Your task to perform on an android device: Open calendar and show me the third week of next month Image 0: 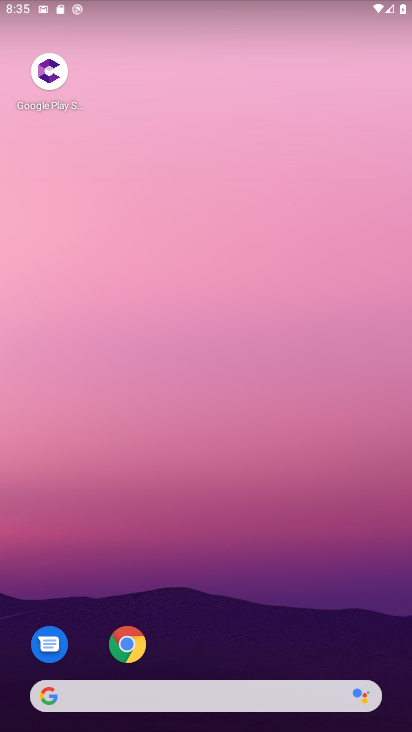
Step 0: drag from (312, 672) to (310, 260)
Your task to perform on an android device: Open calendar and show me the third week of next month Image 1: 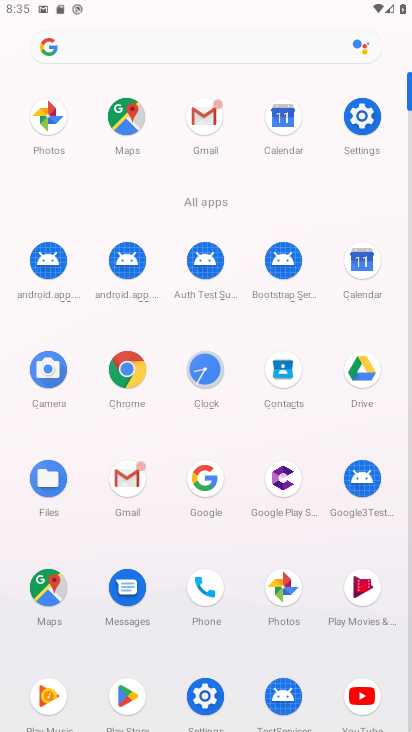
Step 1: click (360, 253)
Your task to perform on an android device: Open calendar and show me the third week of next month Image 2: 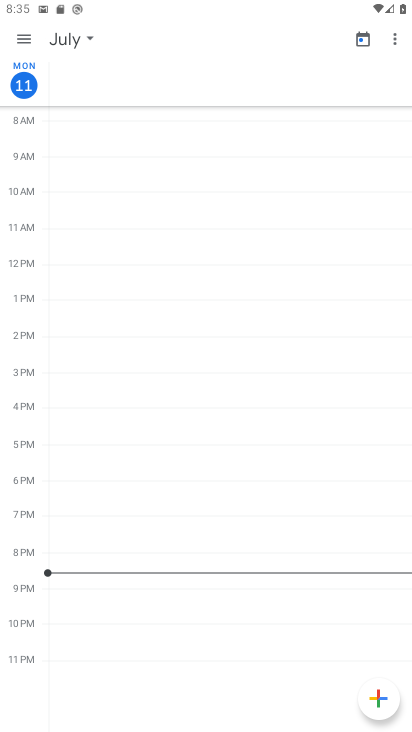
Step 2: click (76, 43)
Your task to perform on an android device: Open calendar and show me the third week of next month Image 3: 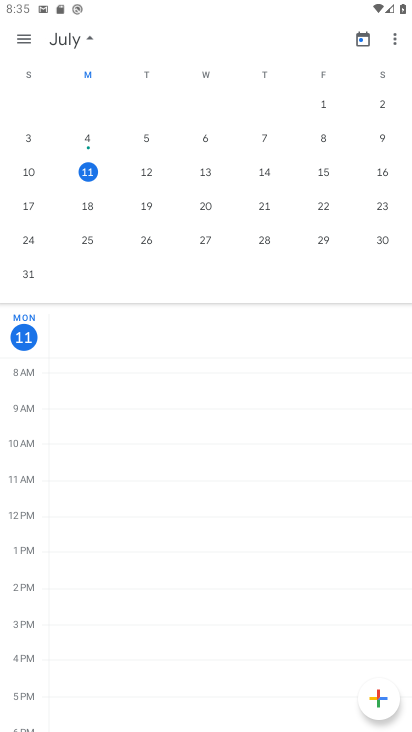
Step 3: drag from (393, 179) to (3, 257)
Your task to perform on an android device: Open calendar and show me the third week of next month Image 4: 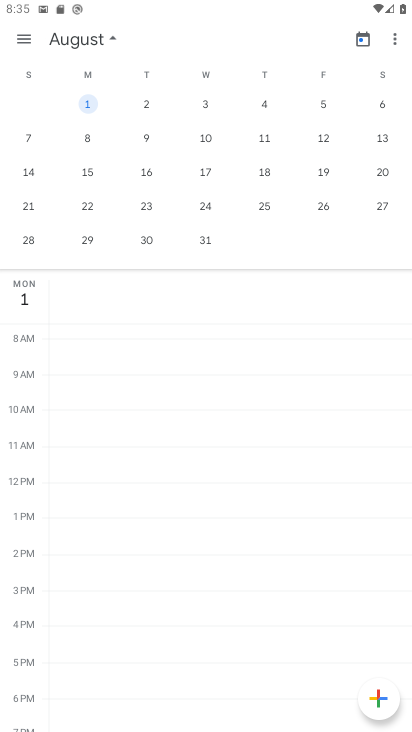
Step 4: click (30, 173)
Your task to perform on an android device: Open calendar and show me the third week of next month Image 5: 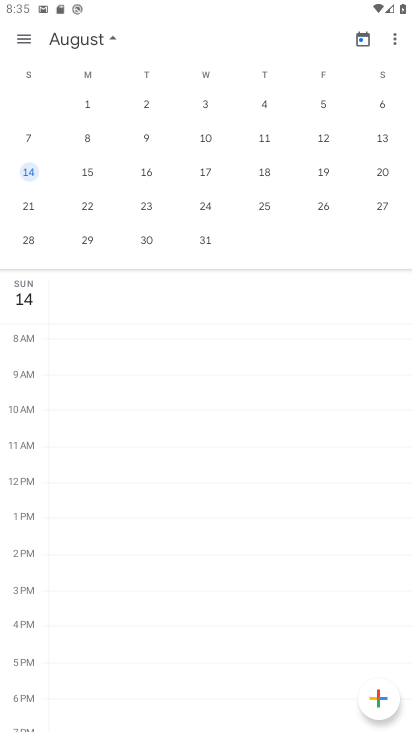
Step 5: task complete